Your task to perform on an android device: What is the news today? Image 0: 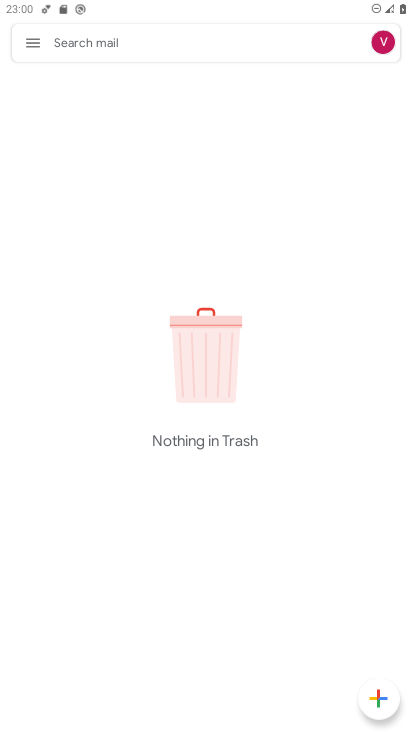
Step 0: press home button
Your task to perform on an android device: What is the news today? Image 1: 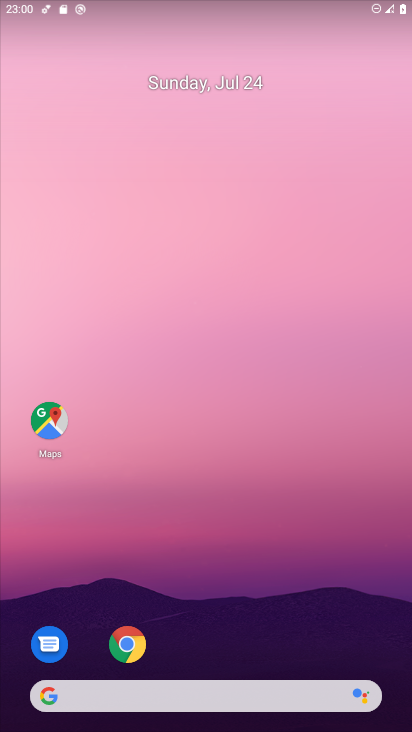
Step 1: task complete